Your task to perform on an android device: Open the map Image 0: 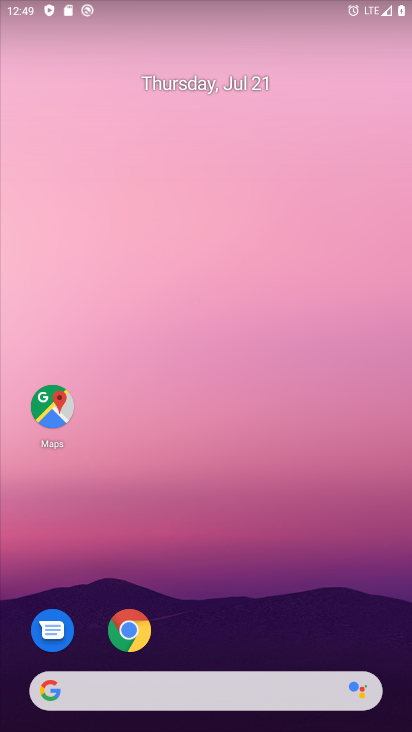
Step 0: click (30, 392)
Your task to perform on an android device: Open the map Image 1: 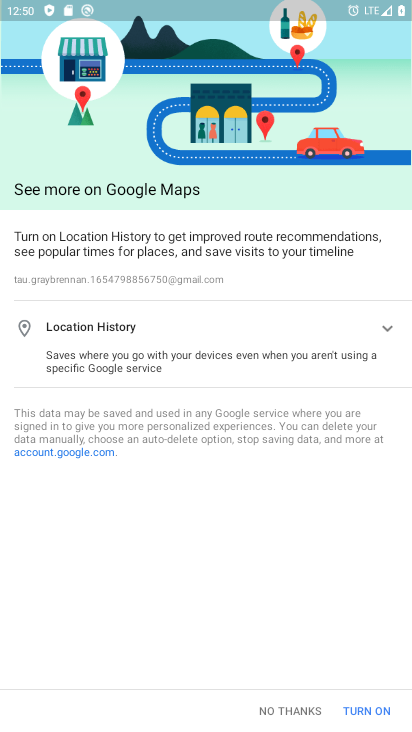
Step 1: task complete